Your task to perform on an android device: Go to Reddit.com Image 0: 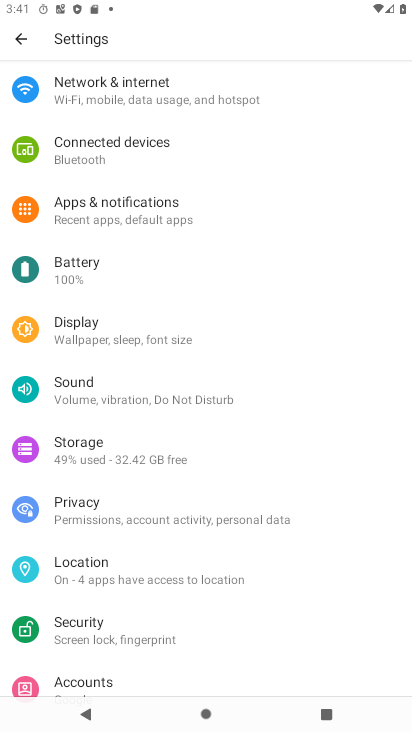
Step 0: press home button
Your task to perform on an android device: Go to Reddit.com Image 1: 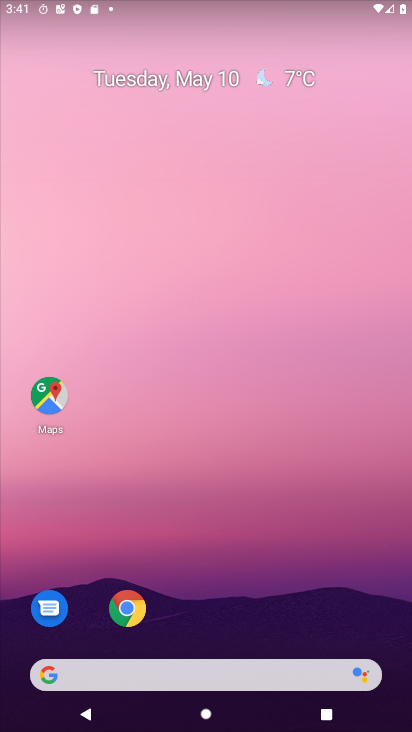
Step 1: click (138, 611)
Your task to perform on an android device: Go to Reddit.com Image 2: 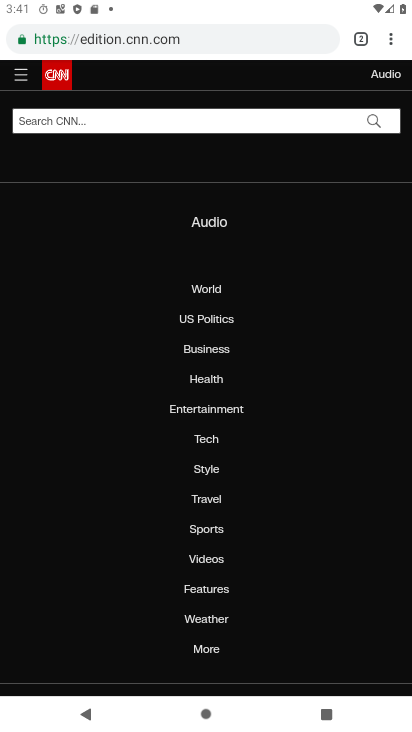
Step 2: click (117, 40)
Your task to perform on an android device: Go to Reddit.com Image 3: 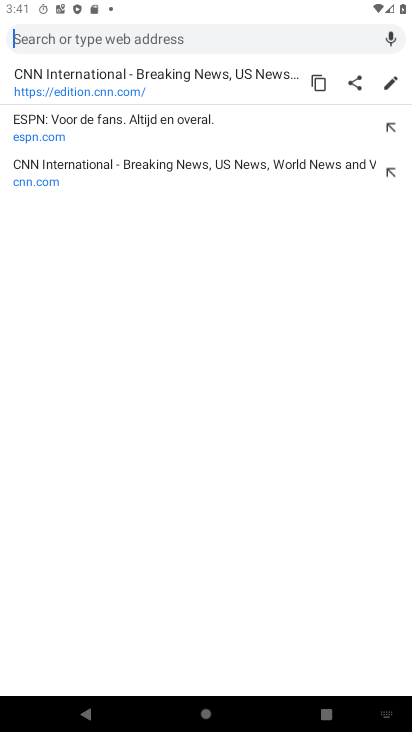
Step 3: type "reddit.com"
Your task to perform on an android device: Go to Reddit.com Image 4: 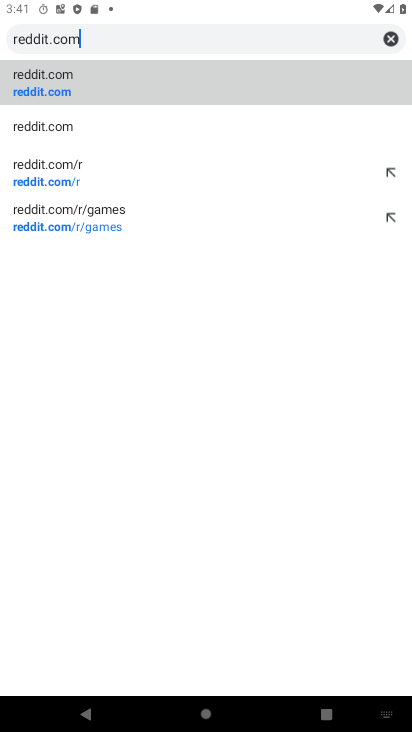
Step 4: click (56, 79)
Your task to perform on an android device: Go to Reddit.com Image 5: 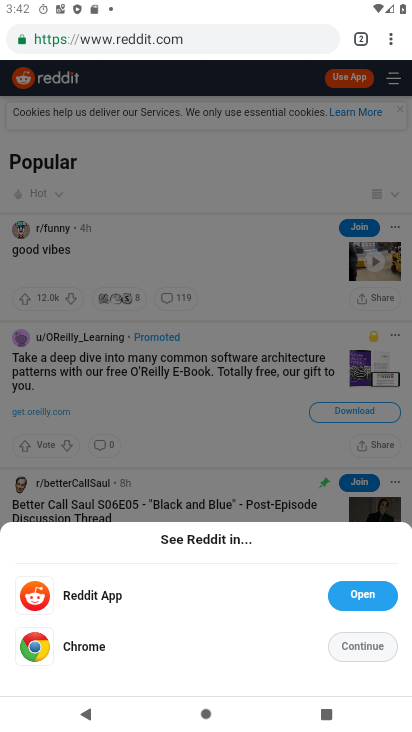
Step 5: task complete